Your task to perform on an android device: Open the calendar and show me this week's events Image 0: 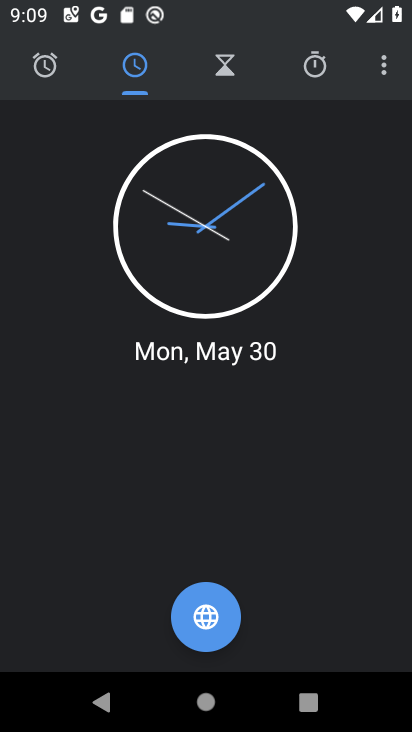
Step 0: press home button
Your task to perform on an android device: Open the calendar and show me this week's events Image 1: 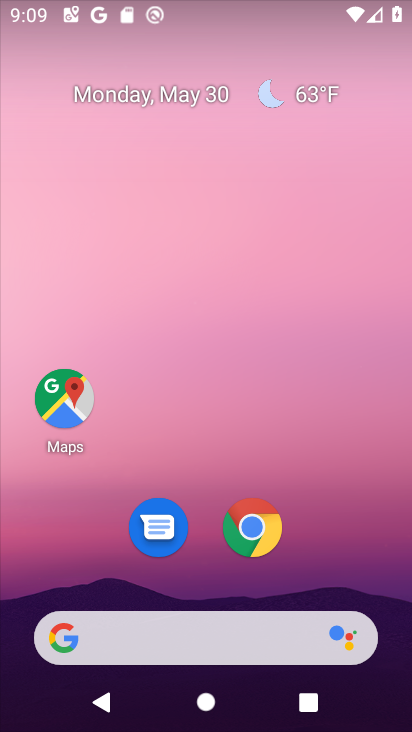
Step 1: drag from (337, 566) to (255, 176)
Your task to perform on an android device: Open the calendar and show me this week's events Image 2: 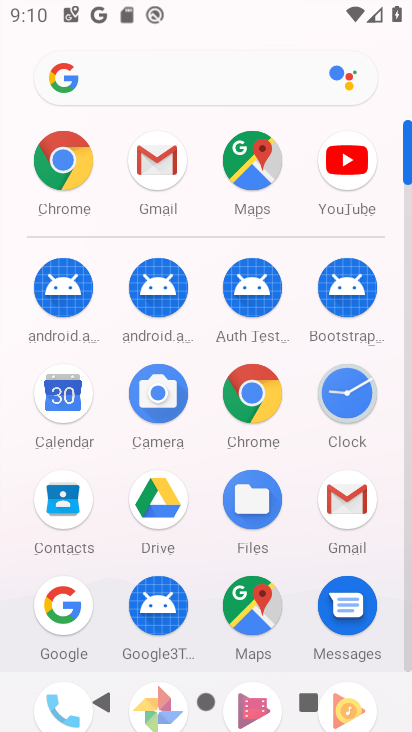
Step 2: click (60, 393)
Your task to perform on an android device: Open the calendar and show me this week's events Image 3: 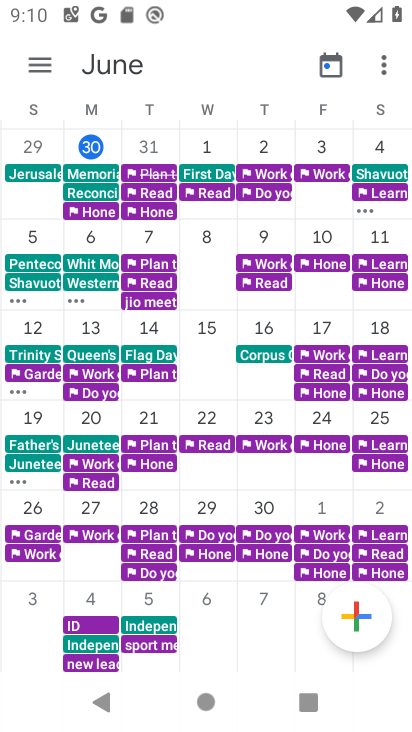
Step 3: click (39, 72)
Your task to perform on an android device: Open the calendar and show me this week's events Image 4: 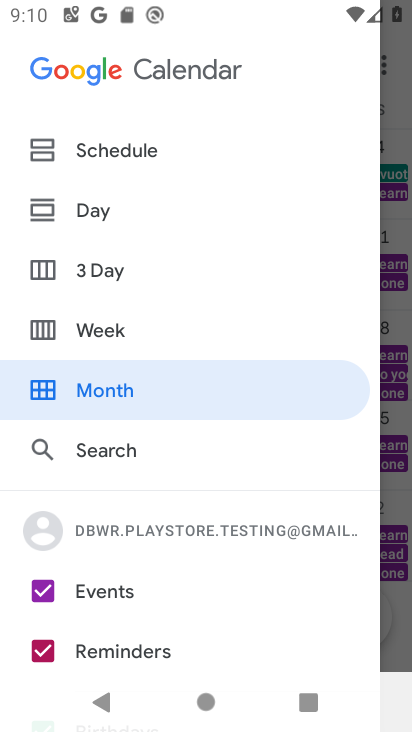
Step 4: click (104, 317)
Your task to perform on an android device: Open the calendar and show me this week's events Image 5: 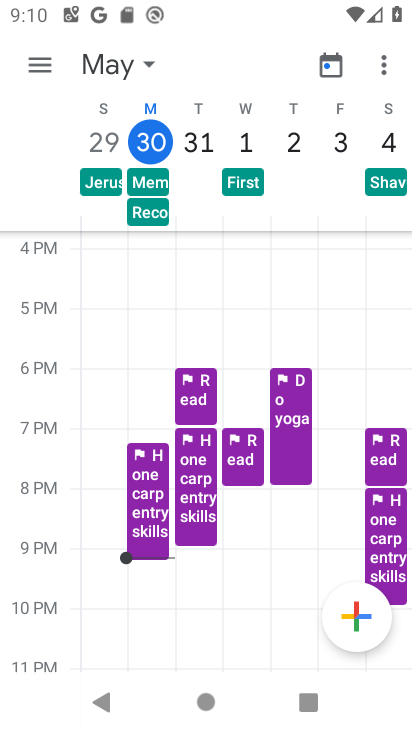
Step 5: task complete